Your task to perform on an android device: Open the web browser Image 0: 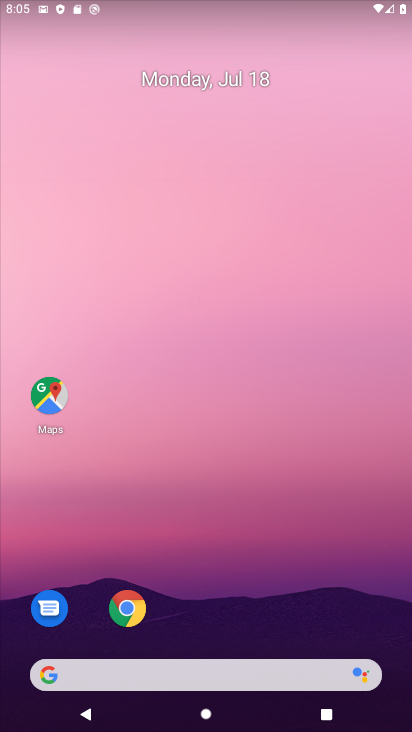
Step 0: click (138, 603)
Your task to perform on an android device: Open the web browser Image 1: 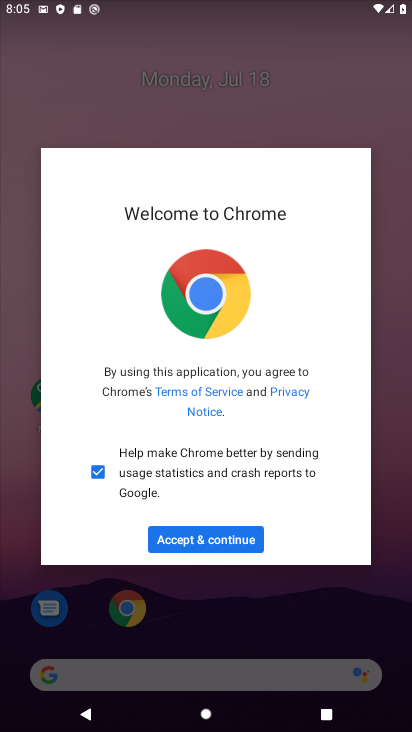
Step 1: click (229, 536)
Your task to perform on an android device: Open the web browser Image 2: 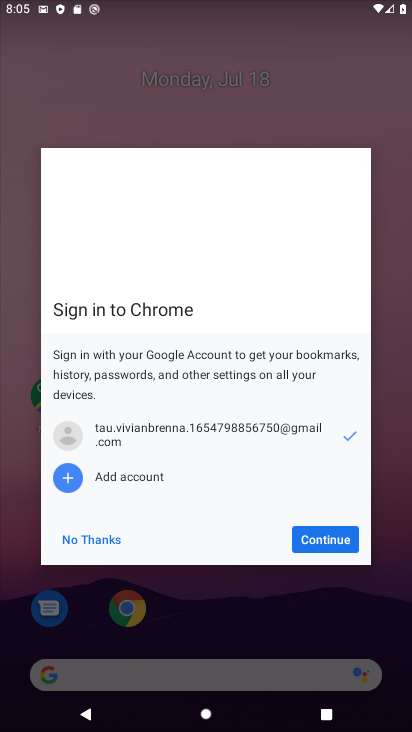
Step 2: click (319, 536)
Your task to perform on an android device: Open the web browser Image 3: 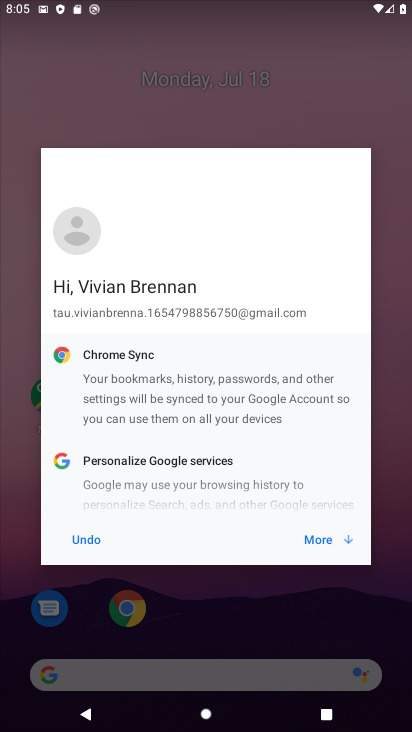
Step 3: click (319, 536)
Your task to perform on an android device: Open the web browser Image 4: 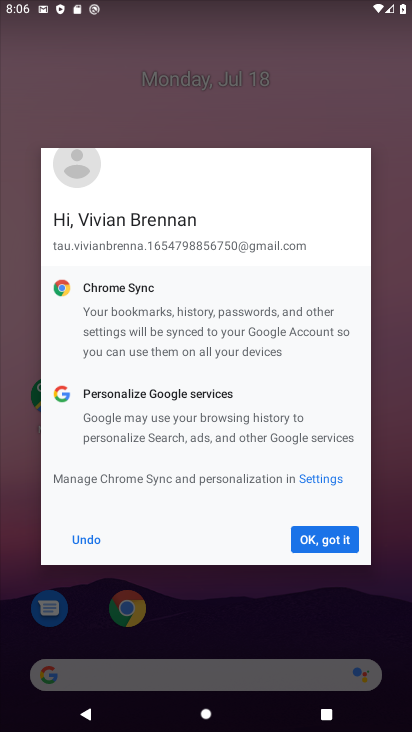
Step 4: click (319, 535)
Your task to perform on an android device: Open the web browser Image 5: 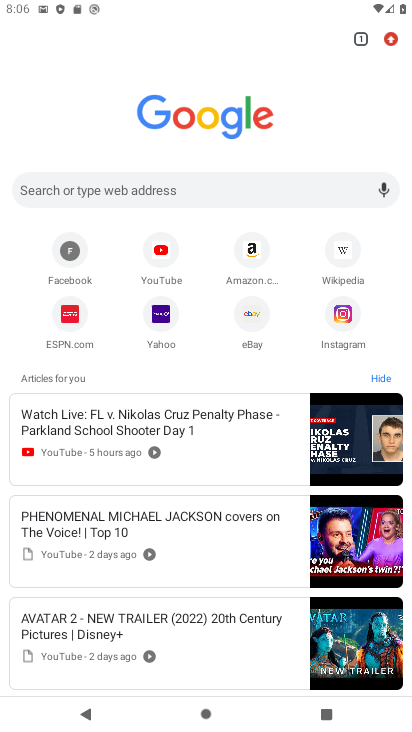
Step 5: task complete